Your task to perform on an android device: change keyboard looks Image 0: 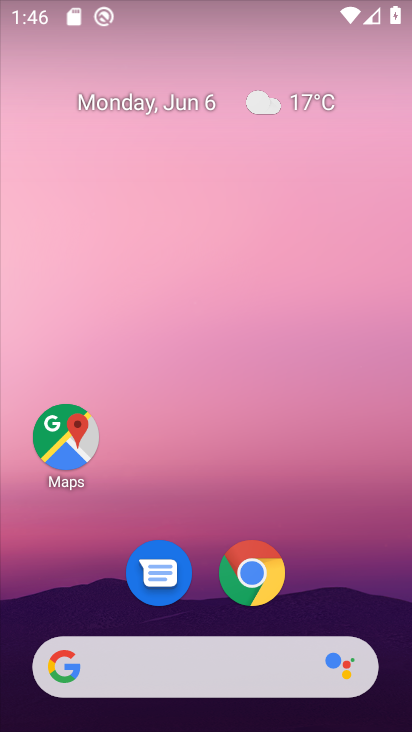
Step 0: drag from (336, 240) to (276, 82)
Your task to perform on an android device: change keyboard looks Image 1: 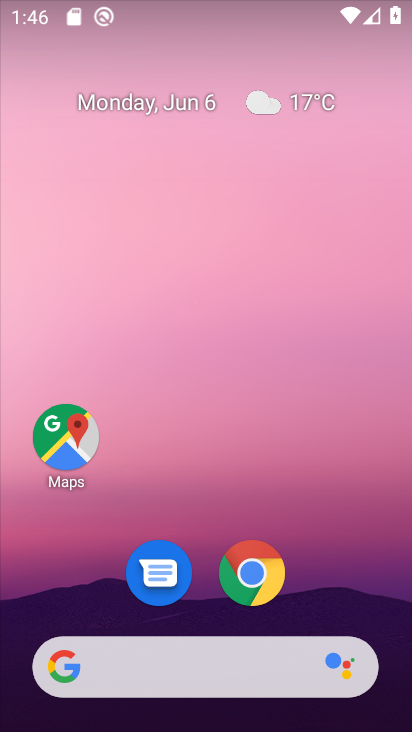
Step 1: click (397, 650)
Your task to perform on an android device: change keyboard looks Image 2: 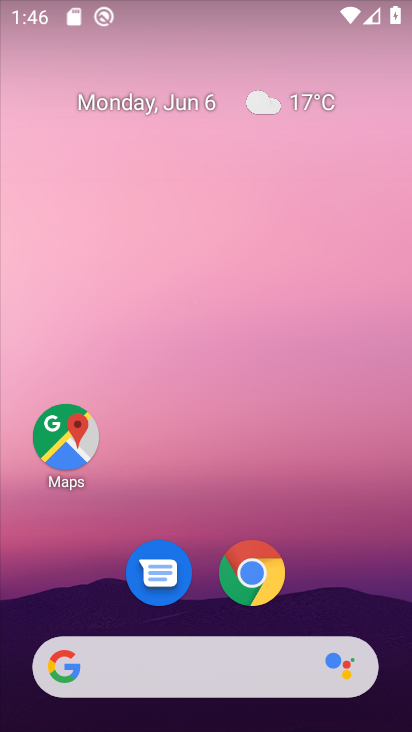
Step 2: drag from (397, 387) to (330, 34)
Your task to perform on an android device: change keyboard looks Image 3: 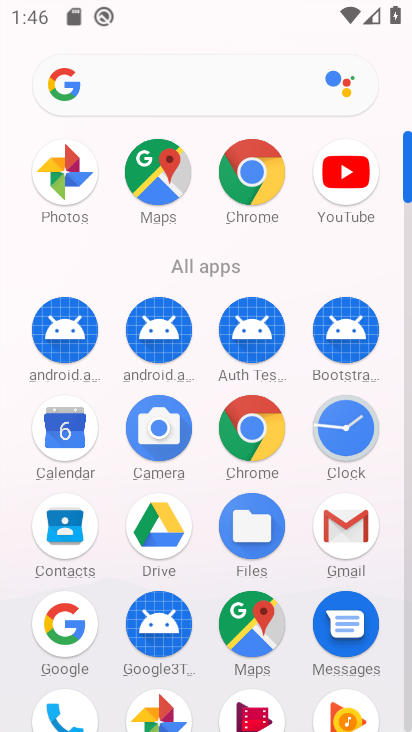
Step 3: click (289, 671)
Your task to perform on an android device: change keyboard looks Image 4: 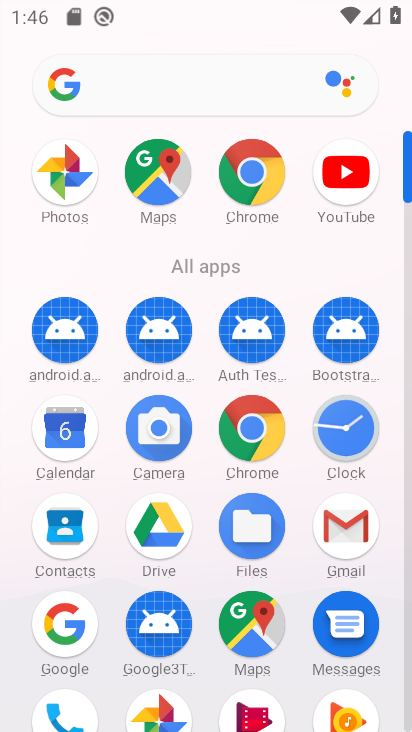
Step 4: drag from (297, 458) to (313, 157)
Your task to perform on an android device: change keyboard looks Image 5: 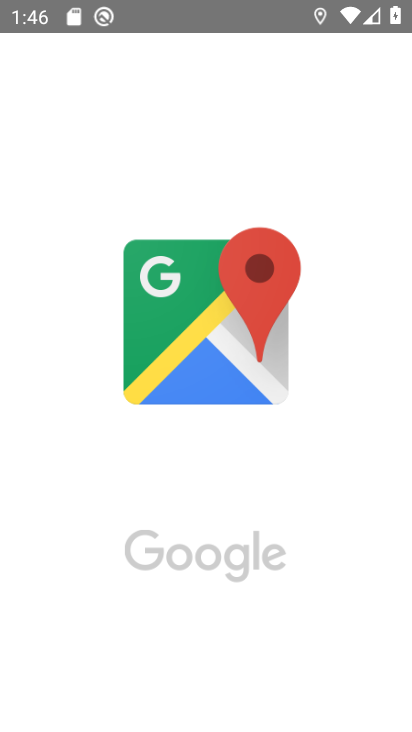
Step 5: press home button
Your task to perform on an android device: change keyboard looks Image 6: 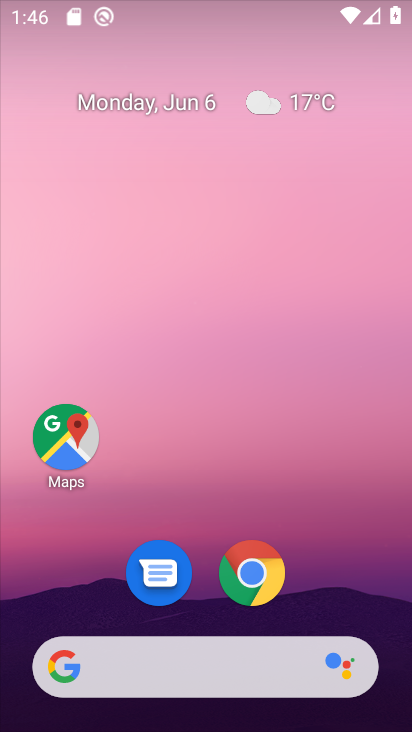
Step 6: drag from (391, 625) to (334, 412)
Your task to perform on an android device: change keyboard looks Image 7: 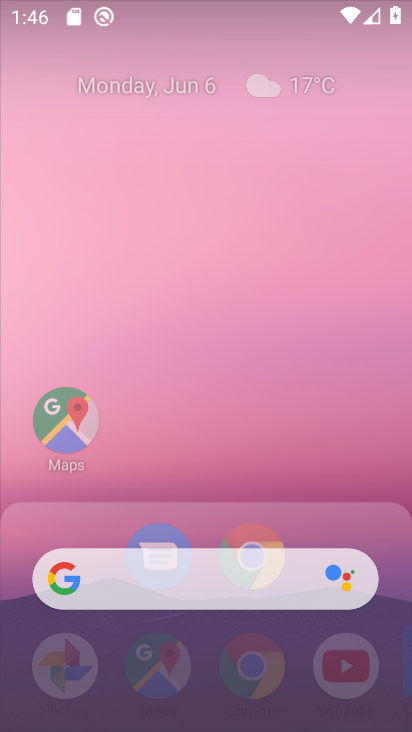
Step 7: drag from (288, 236) to (205, 40)
Your task to perform on an android device: change keyboard looks Image 8: 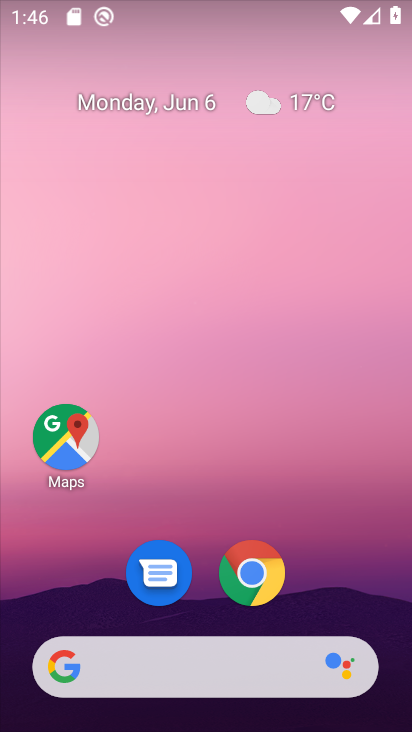
Step 8: drag from (398, 687) to (294, 35)
Your task to perform on an android device: change keyboard looks Image 9: 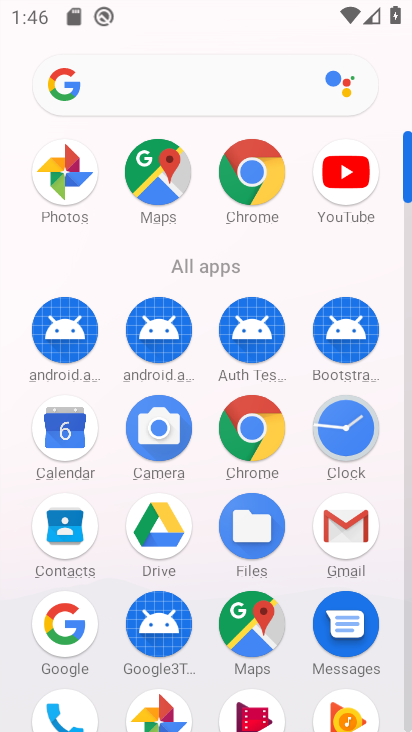
Step 9: drag from (300, 679) to (267, 184)
Your task to perform on an android device: change keyboard looks Image 10: 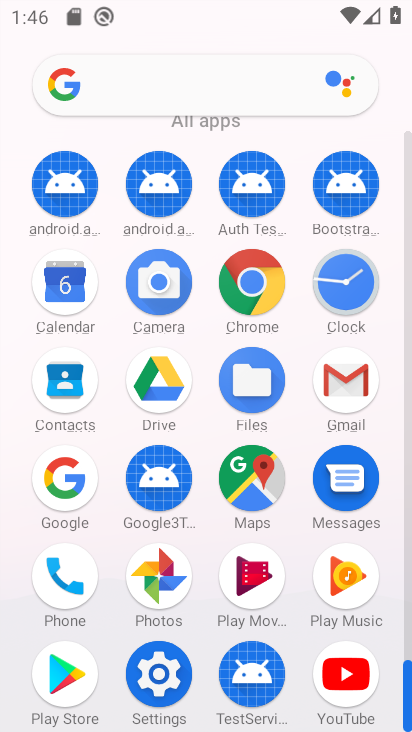
Step 10: click (154, 686)
Your task to perform on an android device: change keyboard looks Image 11: 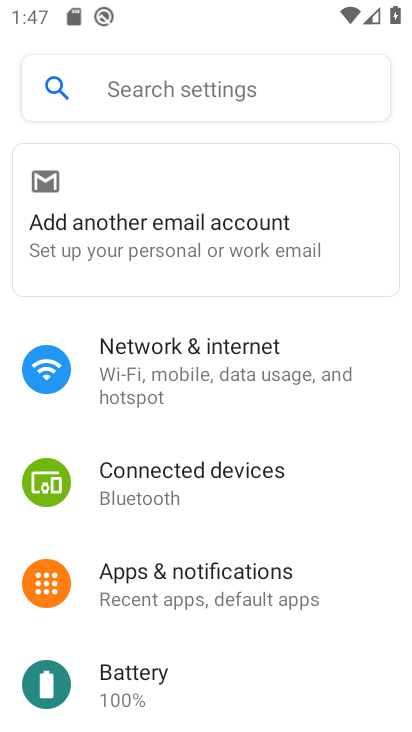
Step 11: drag from (71, 685) to (210, 71)
Your task to perform on an android device: change keyboard looks Image 12: 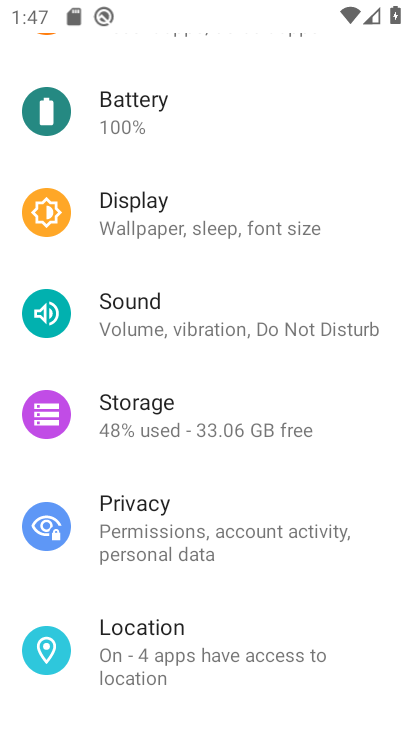
Step 12: drag from (107, 666) to (266, 179)
Your task to perform on an android device: change keyboard looks Image 13: 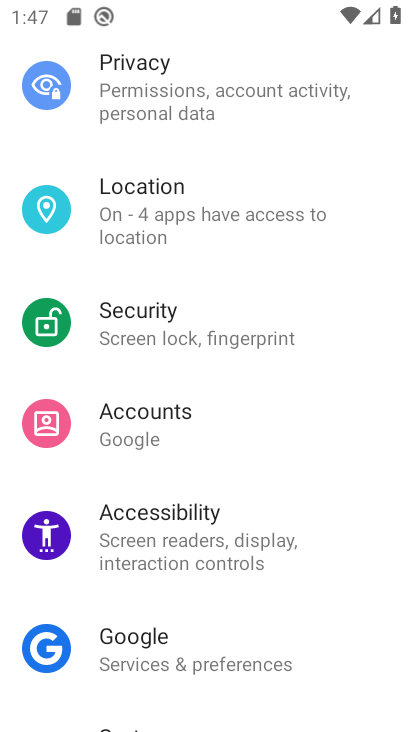
Step 13: drag from (196, 700) to (254, 174)
Your task to perform on an android device: change keyboard looks Image 14: 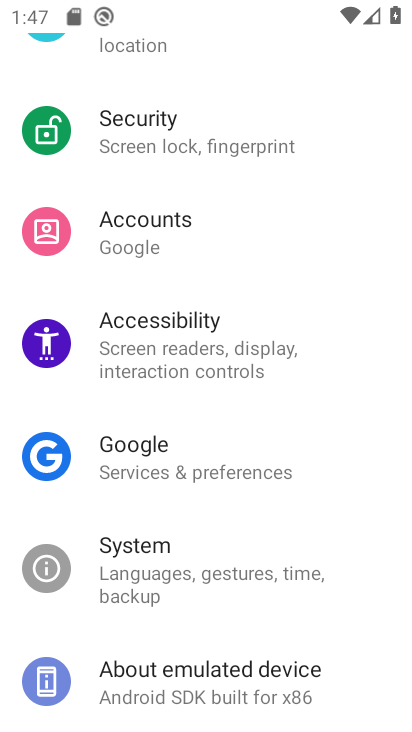
Step 14: click (229, 680)
Your task to perform on an android device: change keyboard looks Image 15: 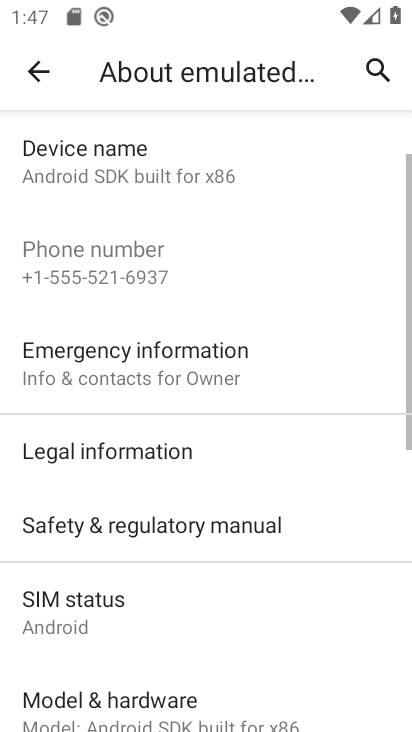
Step 15: press back button
Your task to perform on an android device: change keyboard looks Image 16: 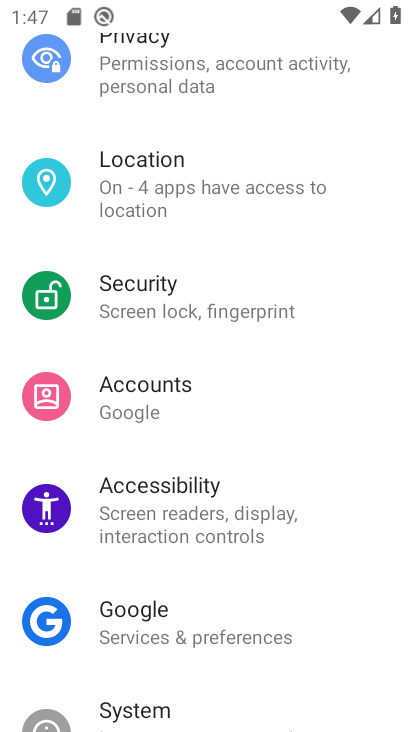
Step 16: click (142, 709)
Your task to perform on an android device: change keyboard looks Image 17: 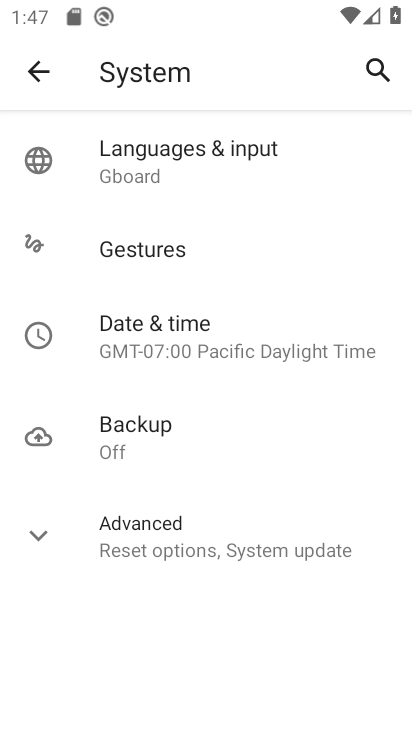
Step 17: click (172, 159)
Your task to perform on an android device: change keyboard looks Image 18: 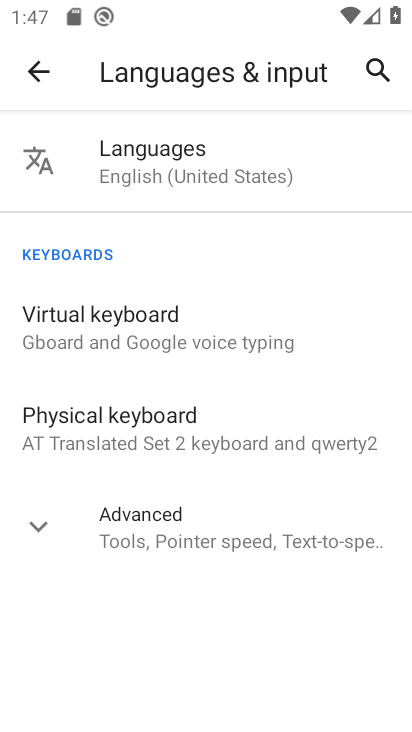
Step 18: click (174, 315)
Your task to perform on an android device: change keyboard looks Image 19: 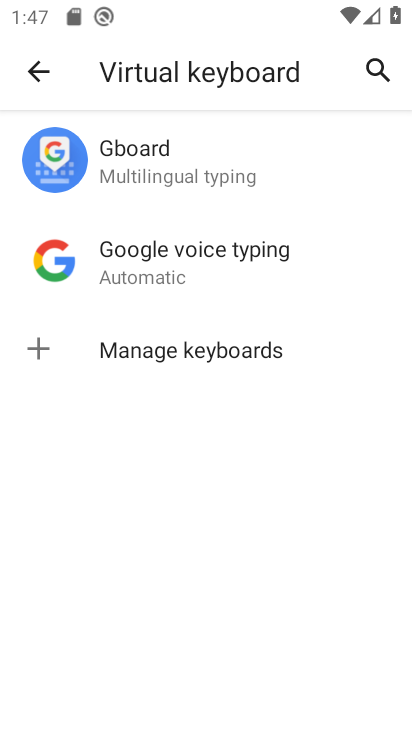
Step 19: click (150, 170)
Your task to perform on an android device: change keyboard looks Image 20: 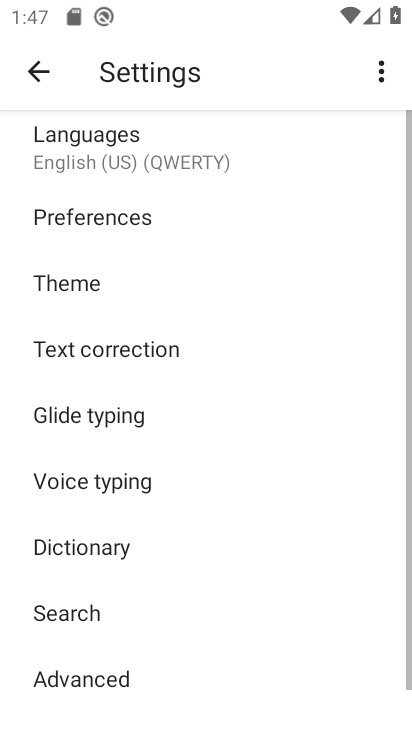
Step 20: click (118, 288)
Your task to perform on an android device: change keyboard looks Image 21: 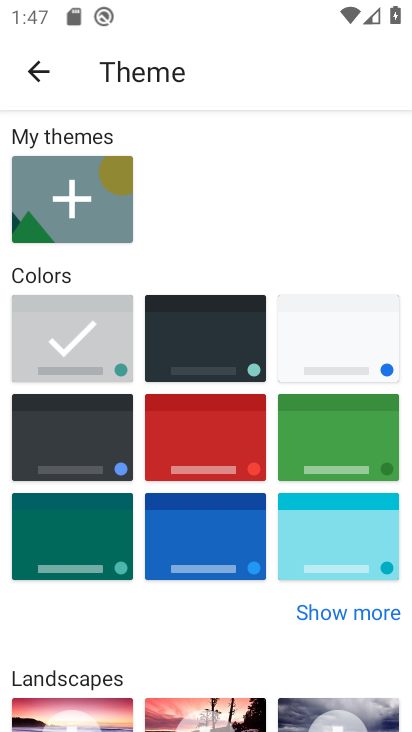
Step 21: click (201, 336)
Your task to perform on an android device: change keyboard looks Image 22: 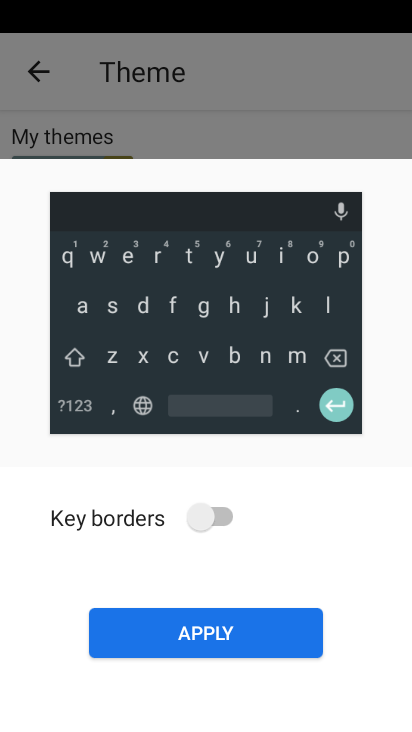
Step 22: click (243, 624)
Your task to perform on an android device: change keyboard looks Image 23: 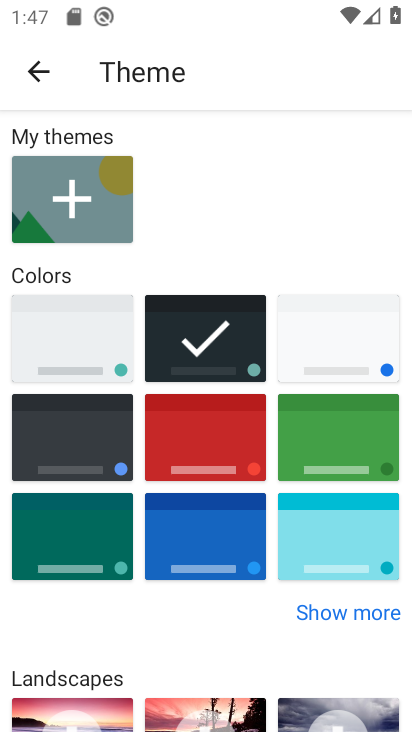
Step 23: task complete